Your task to perform on an android device: Search for vegetarian restaurants on Maps Image 0: 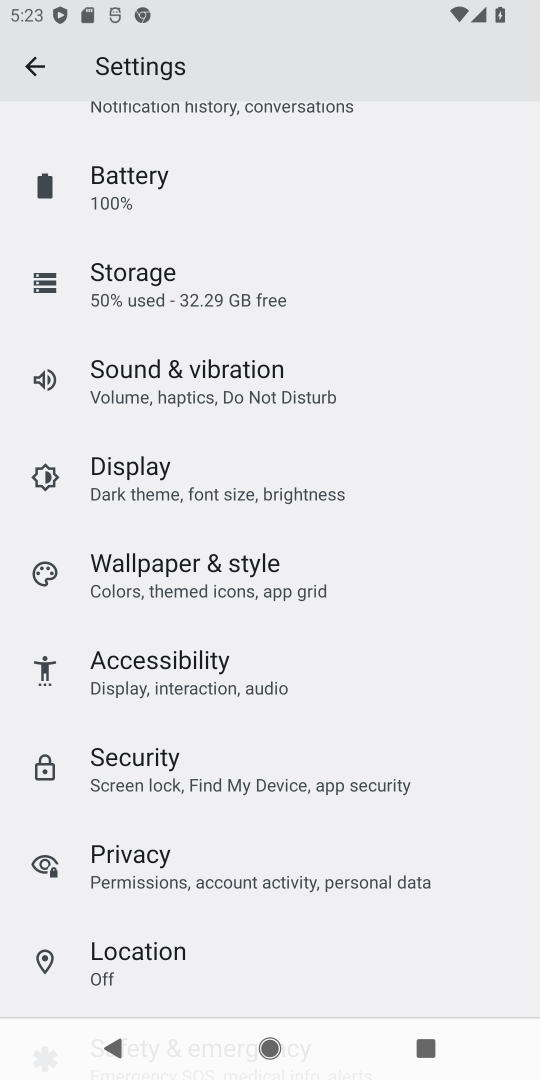
Step 0: press home button
Your task to perform on an android device: Search for vegetarian restaurants on Maps Image 1: 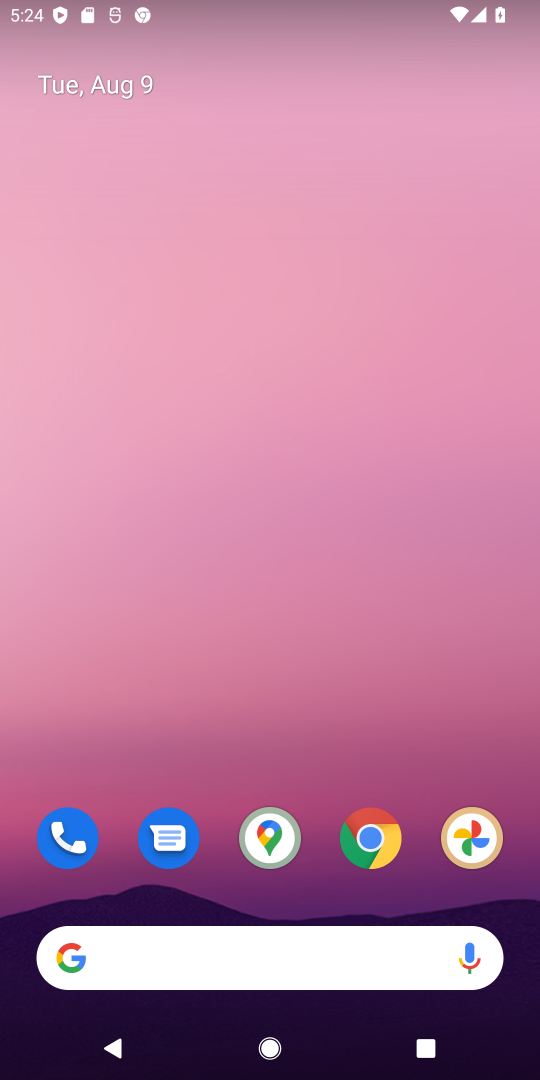
Step 1: click (281, 847)
Your task to perform on an android device: Search for vegetarian restaurants on Maps Image 2: 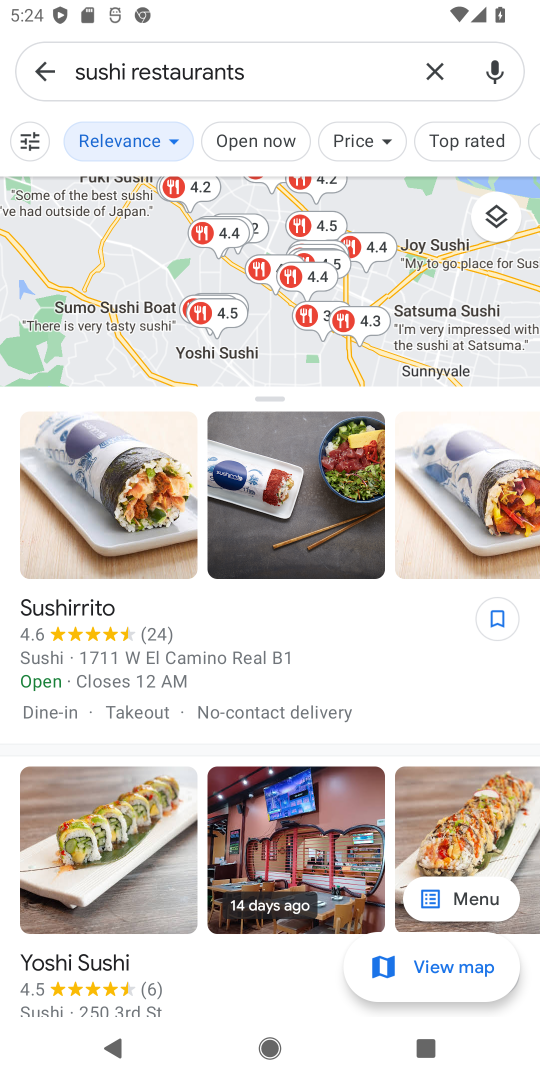
Step 2: click (440, 76)
Your task to perform on an android device: Search for vegetarian restaurants on Maps Image 3: 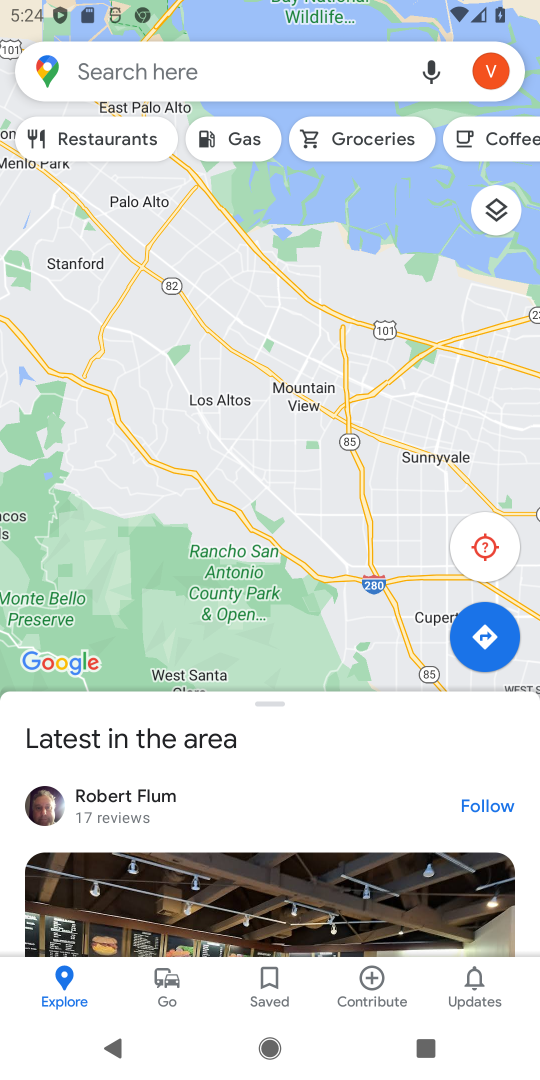
Step 3: click (221, 67)
Your task to perform on an android device: Search for vegetarian restaurants on Maps Image 4: 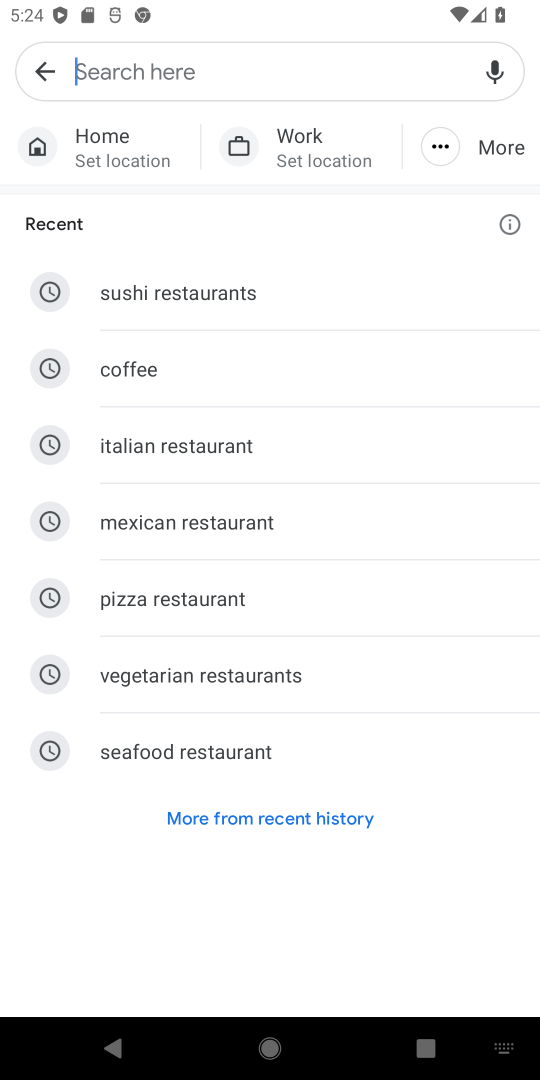
Step 4: click (265, 669)
Your task to perform on an android device: Search for vegetarian restaurants on Maps Image 5: 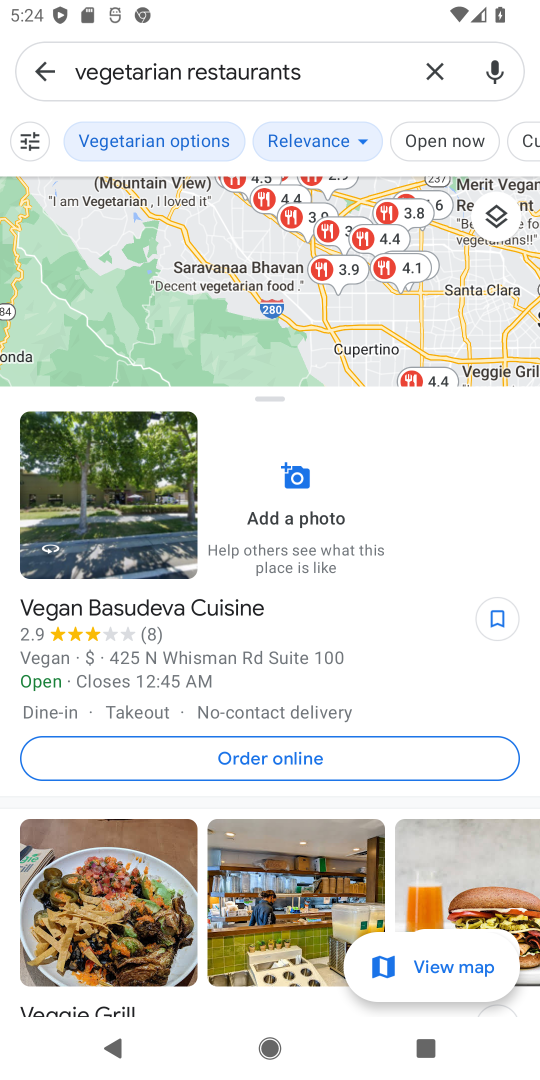
Step 5: task complete